Your task to perform on an android device: open chrome and create a bookmark for the current page Image 0: 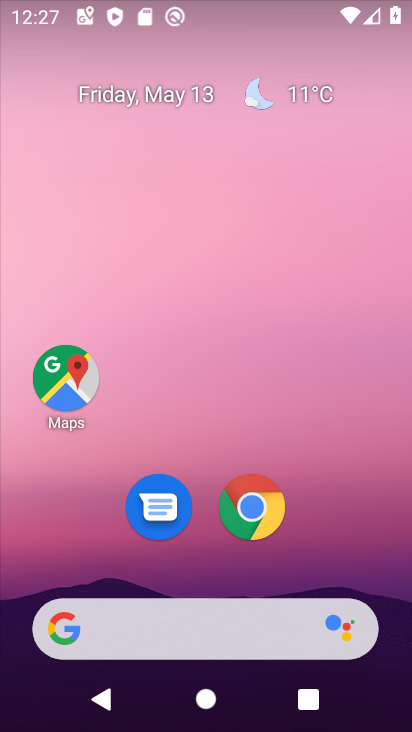
Step 0: click (244, 511)
Your task to perform on an android device: open chrome and create a bookmark for the current page Image 1: 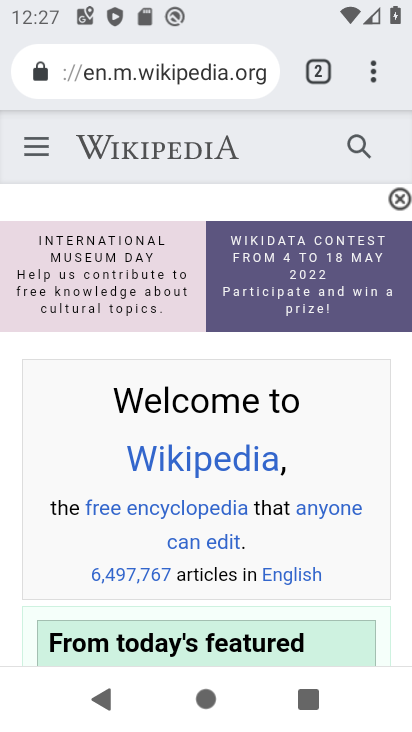
Step 1: task complete